Your task to perform on an android device: Search for "acer predator" on amazon.com, select the first entry, and add it to the cart. Image 0: 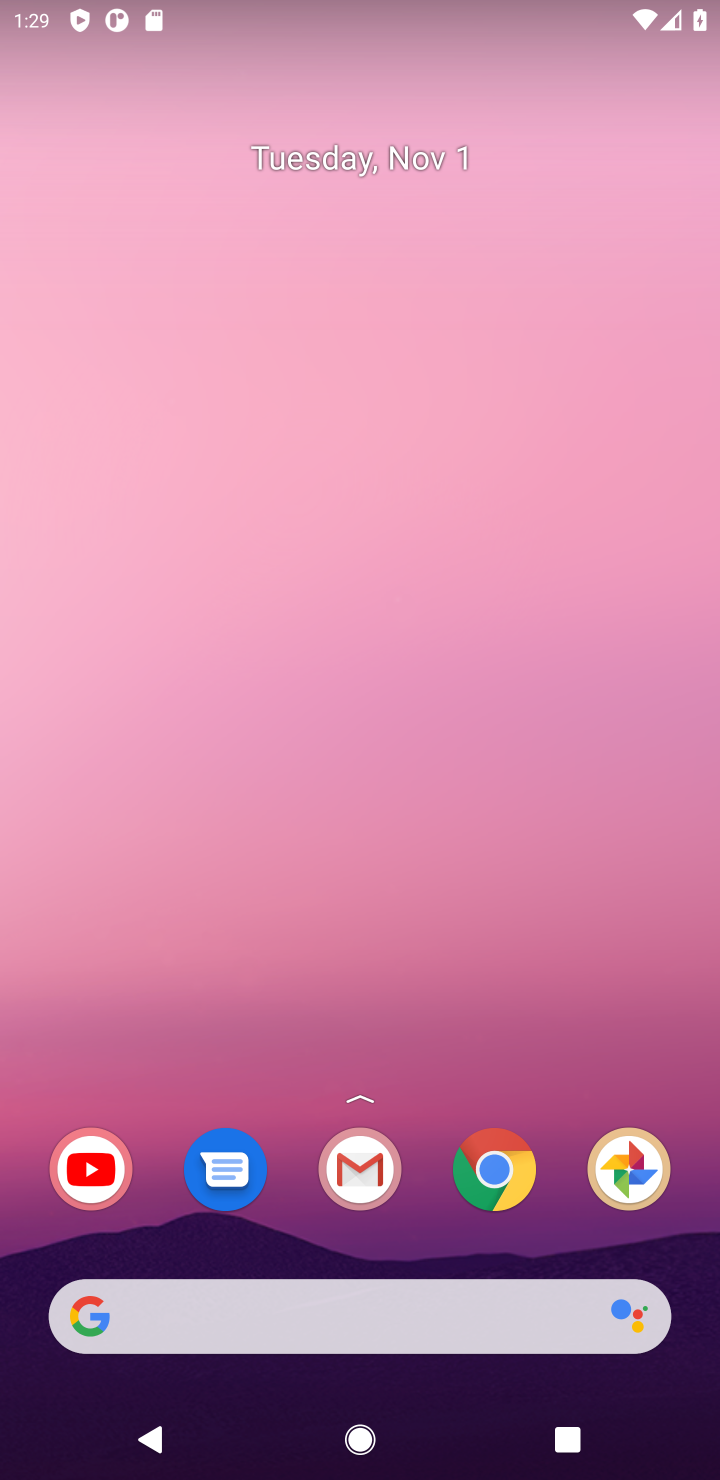
Step 0: click (483, 1184)
Your task to perform on an android device: Search for "acer predator" on amazon.com, select the first entry, and add it to the cart. Image 1: 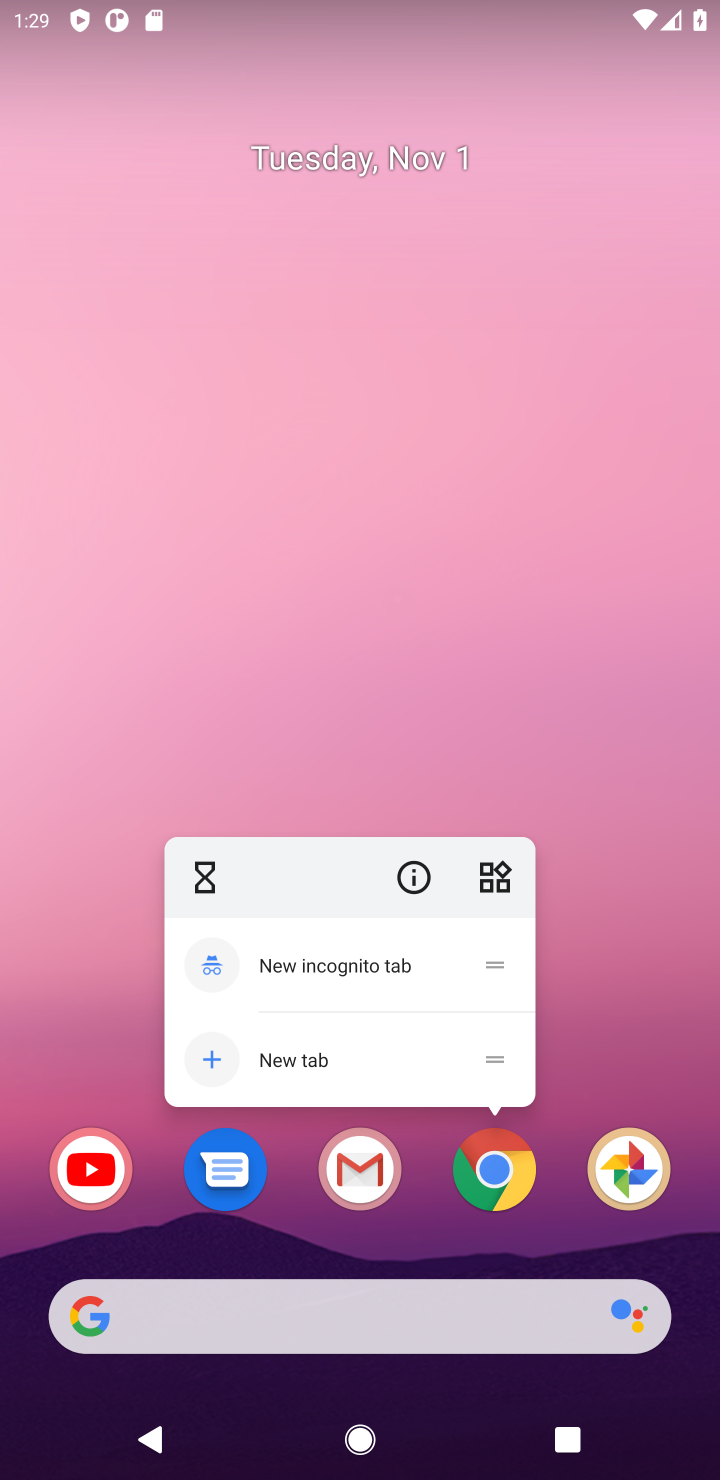
Step 1: click (483, 1184)
Your task to perform on an android device: Search for "acer predator" on amazon.com, select the first entry, and add it to the cart. Image 2: 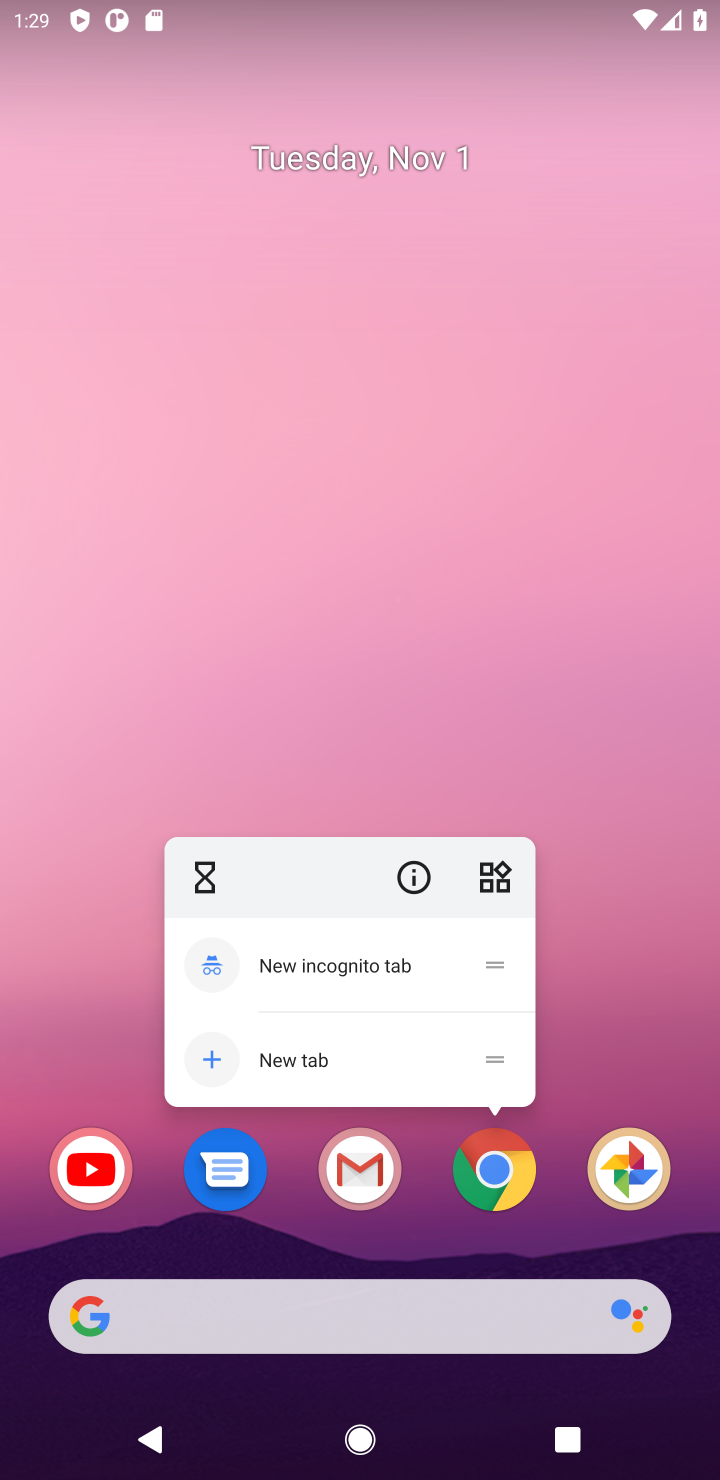
Step 2: click (498, 1163)
Your task to perform on an android device: Search for "acer predator" on amazon.com, select the first entry, and add it to the cart. Image 3: 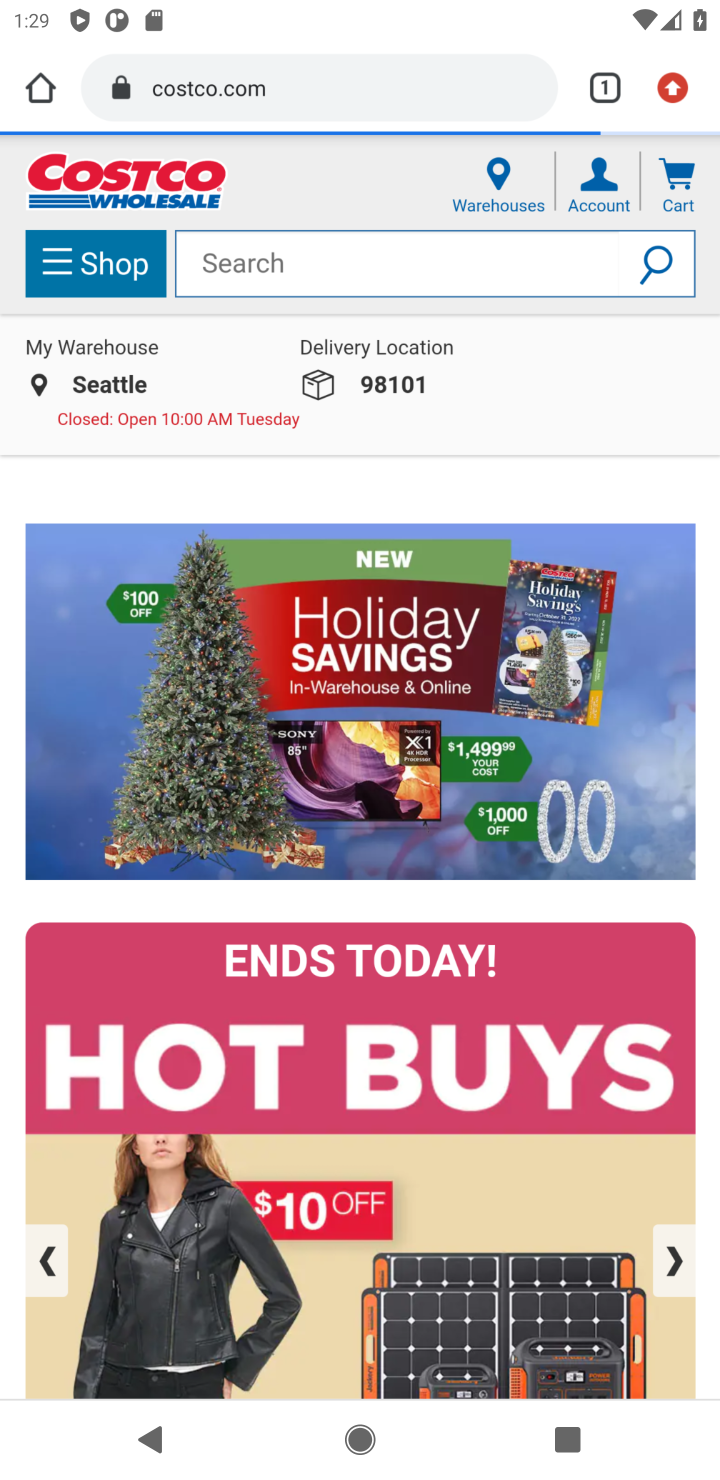
Step 3: click (498, 1163)
Your task to perform on an android device: Search for "acer predator" on amazon.com, select the first entry, and add it to the cart. Image 4: 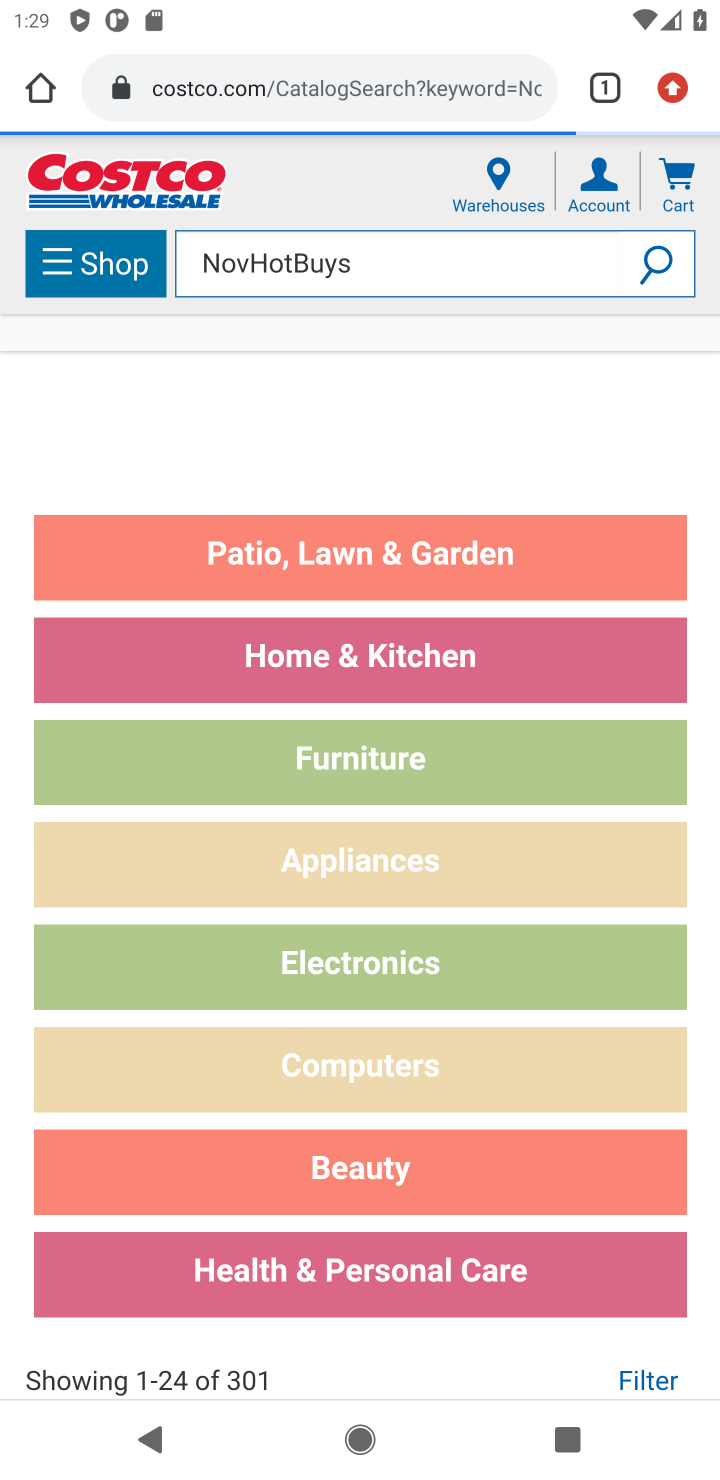
Step 4: click (258, 256)
Your task to perform on an android device: Search for "acer predator" on amazon.com, select the first entry, and add it to the cart. Image 5: 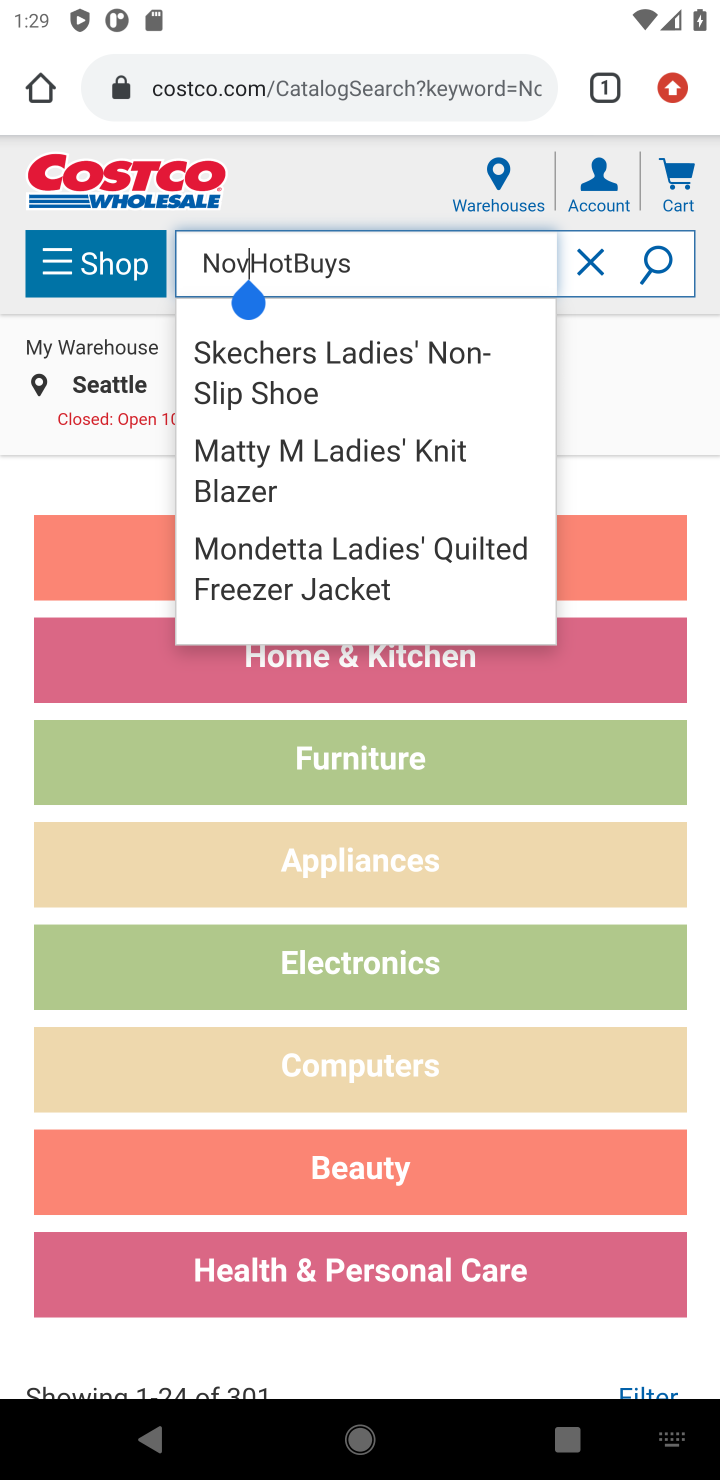
Step 5: click (218, 92)
Your task to perform on an android device: Search for "acer predator" on amazon.com, select the first entry, and add it to the cart. Image 6: 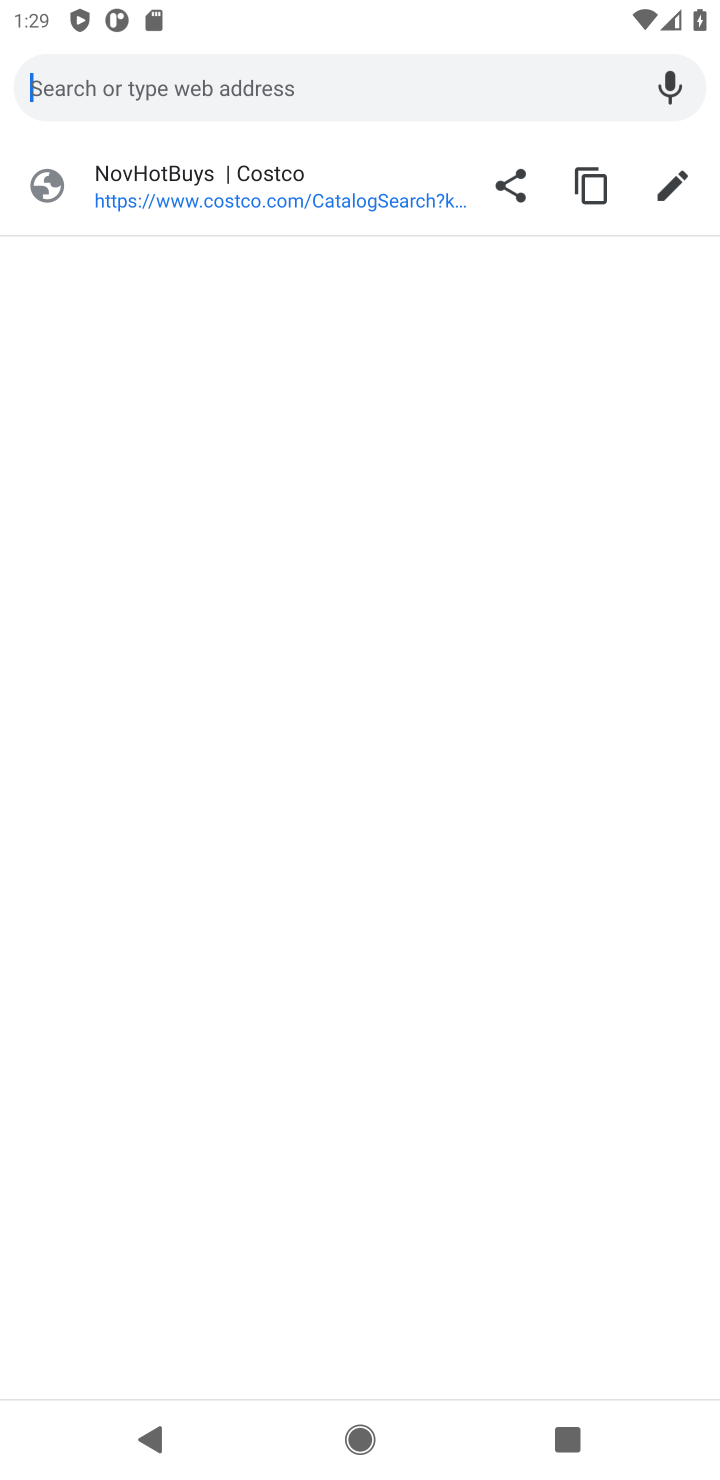
Step 6: type "amazon"
Your task to perform on an android device: Search for "acer predator" on amazon.com, select the first entry, and add it to the cart. Image 7: 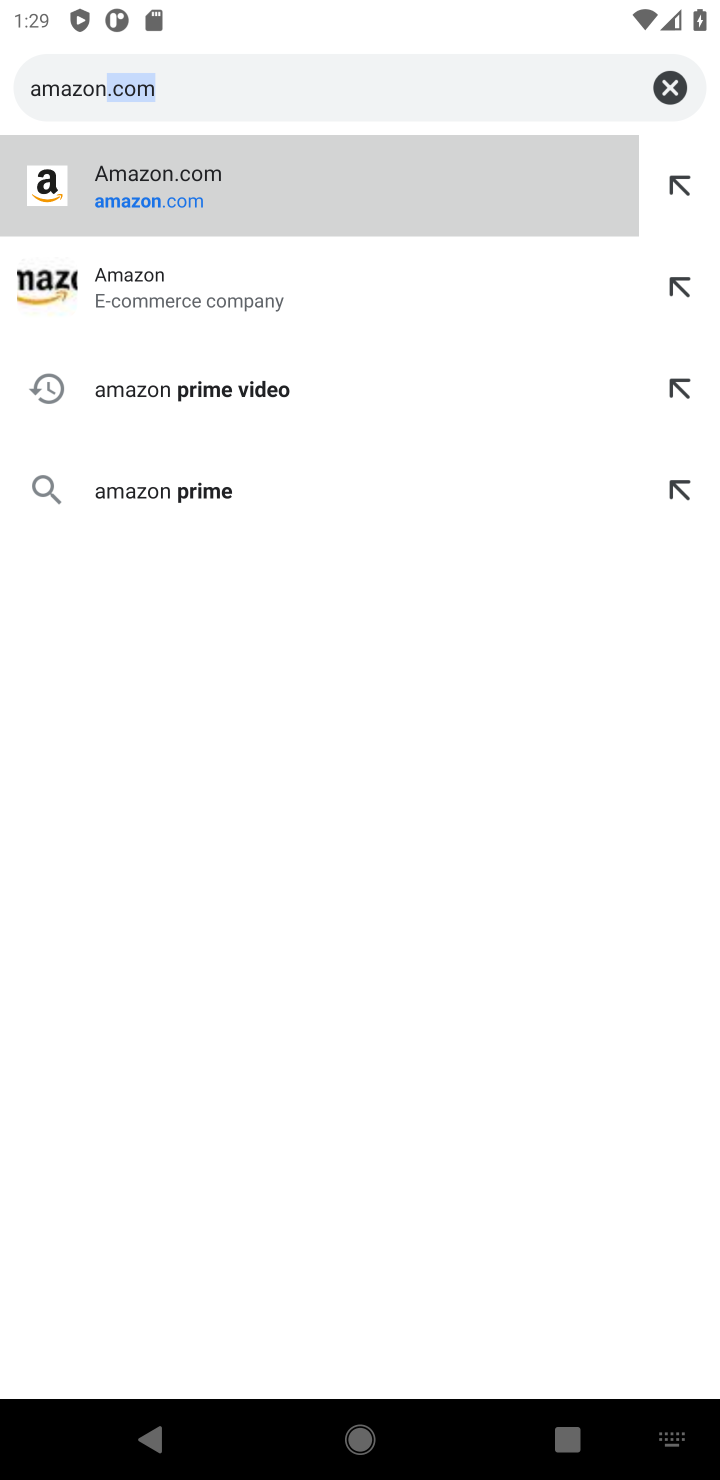
Step 7: click (152, 179)
Your task to perform on an android device: Search for "acer predator" on amazon.com, select the first entry, and add it to the cart. Image 8: 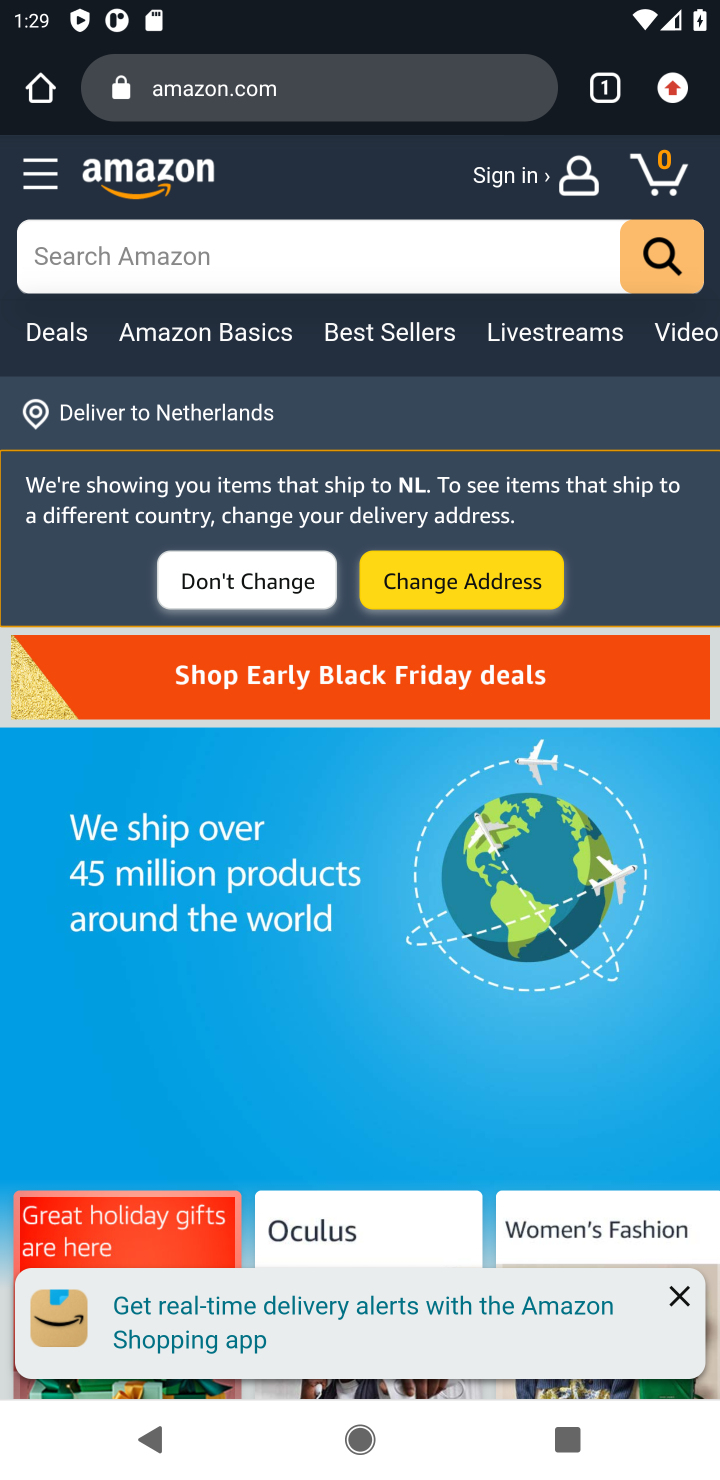
Step 8: click (294, 268)
Your task to perform on an android device: Search for "acer predator" on amazon.com, select the first entry, and add it to the cart. Image 9: 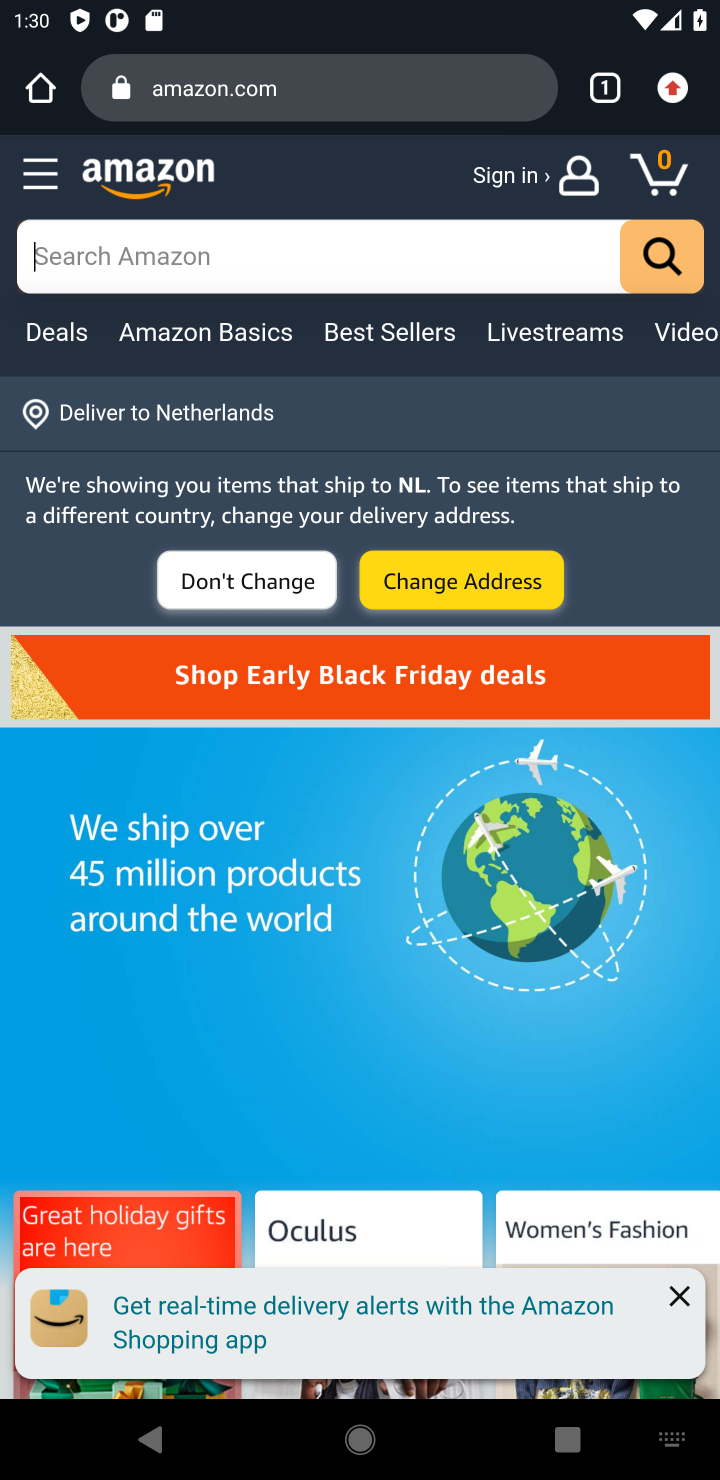
Step 9: type "acer predator"
Your task to perform on an android device: Search for "acer predator" on amazon.com, select the first entry, and add it to the cart. Image 10: 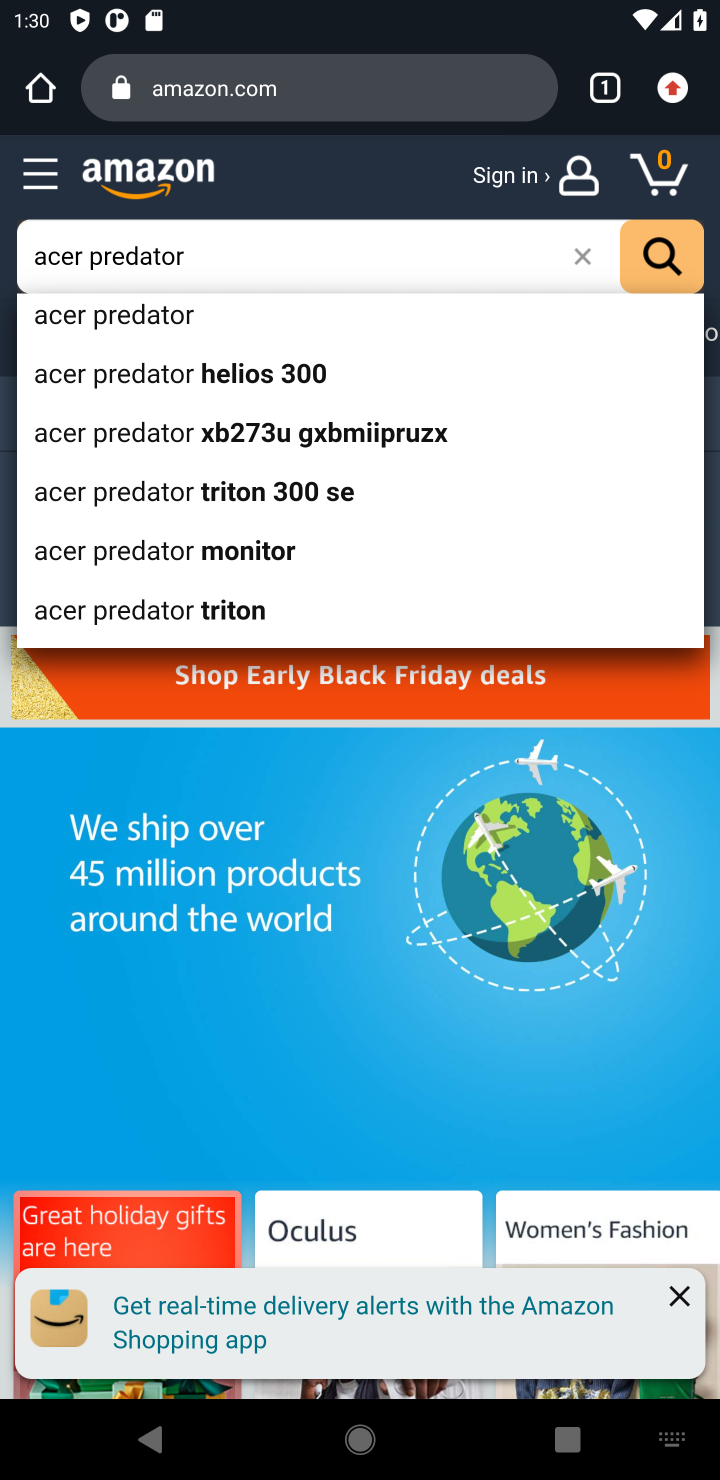
Step 10: click (668, 261)
Your task to perform on an android device: Search for "acer predator" on amazon.com, select the first entry, and add it to the cart. Image 11: 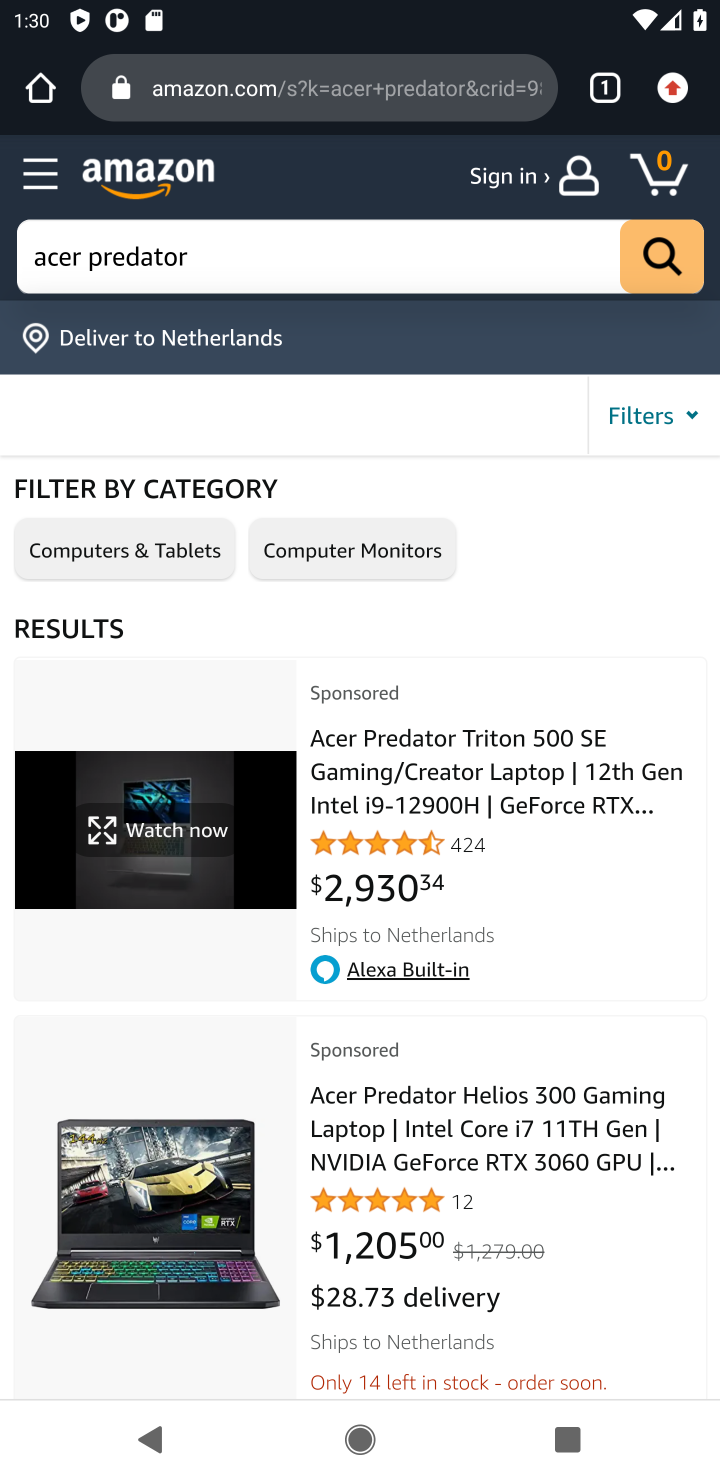
Step 11: click (113, 766)
Your task to perform on an android device: Search for "acer predator" on amazon.com, select the first entry, and add it to the cart. Image 12: 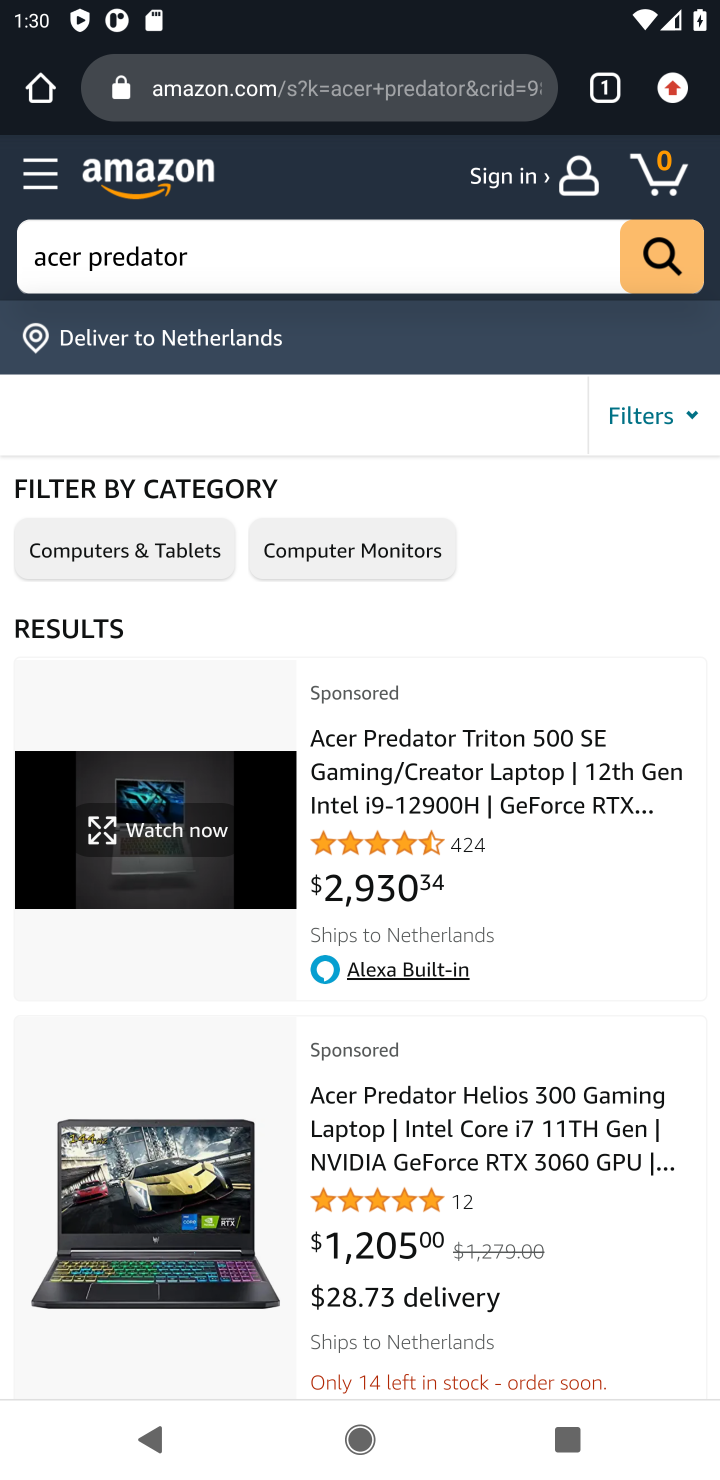
Step 12: click (401, 786)
Your task to perform on an android device: Search for "acer predator" on amazon.com, select the first entry, and add it to the cart. Image 13: 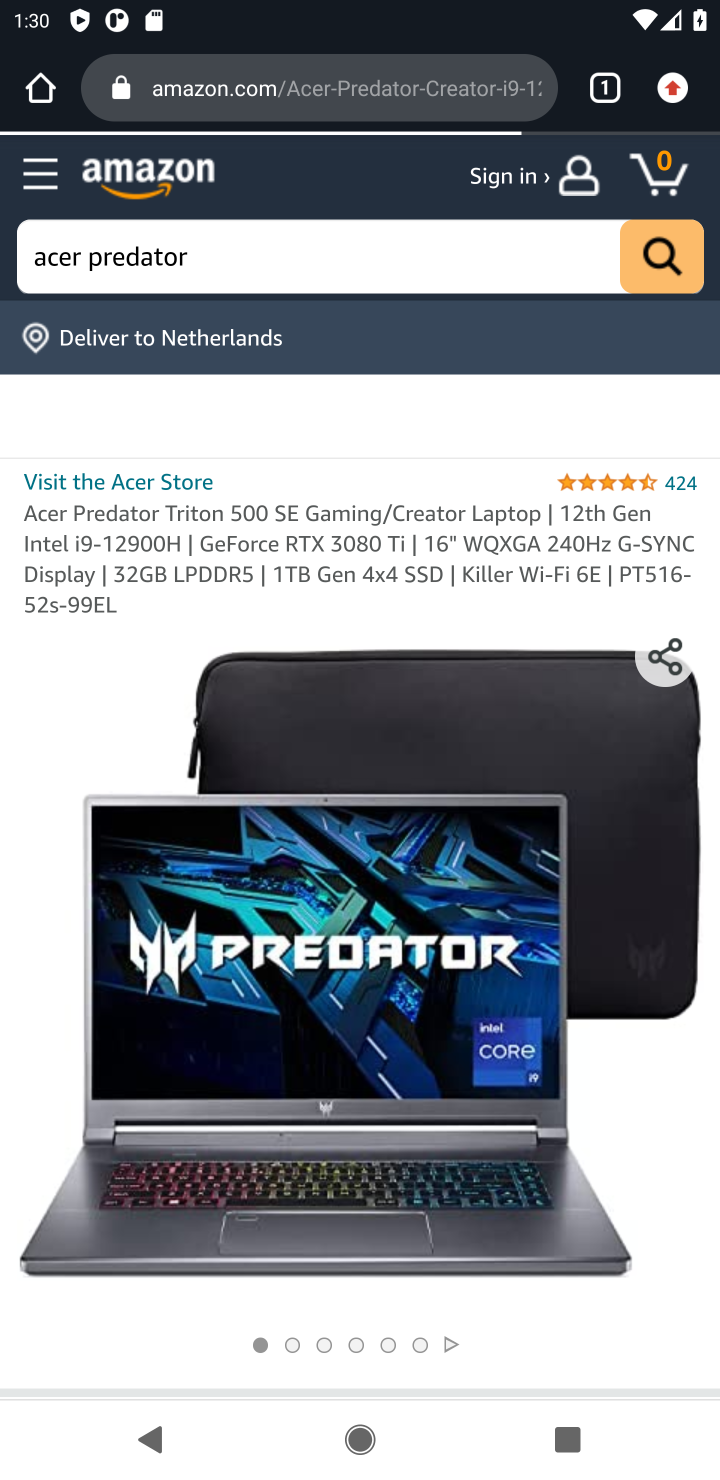
Step 13: drag from (176, 1244) to (285, 534)
Your task to perform on an android device: Search for "acer predator" on amazon.com, select the first entry, and add it to the cart. Image 14: 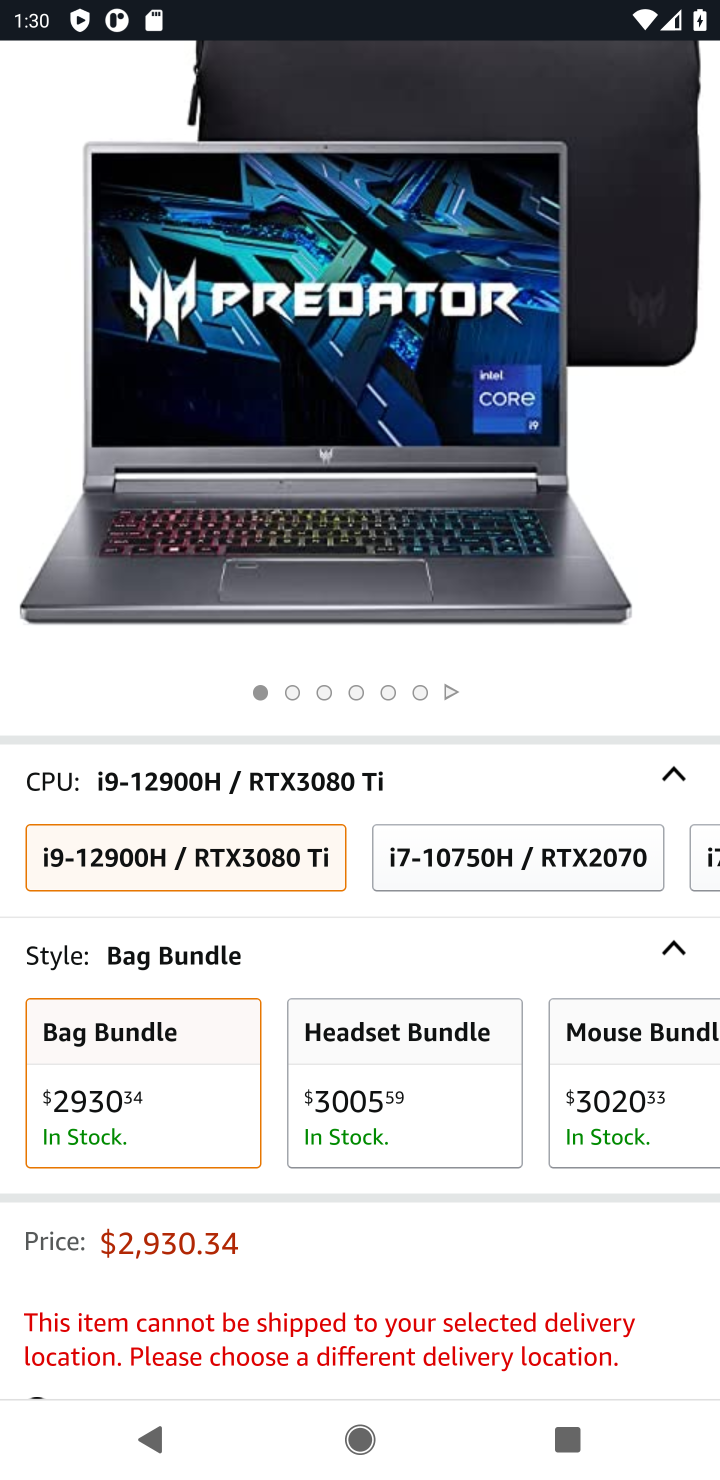
Step 14: drag from (399, 887) to (544, 536)
Your task to perform on an android device: Search for "acer predator" on amazon.com, select the first entry, and add it to the cart. Image 15: 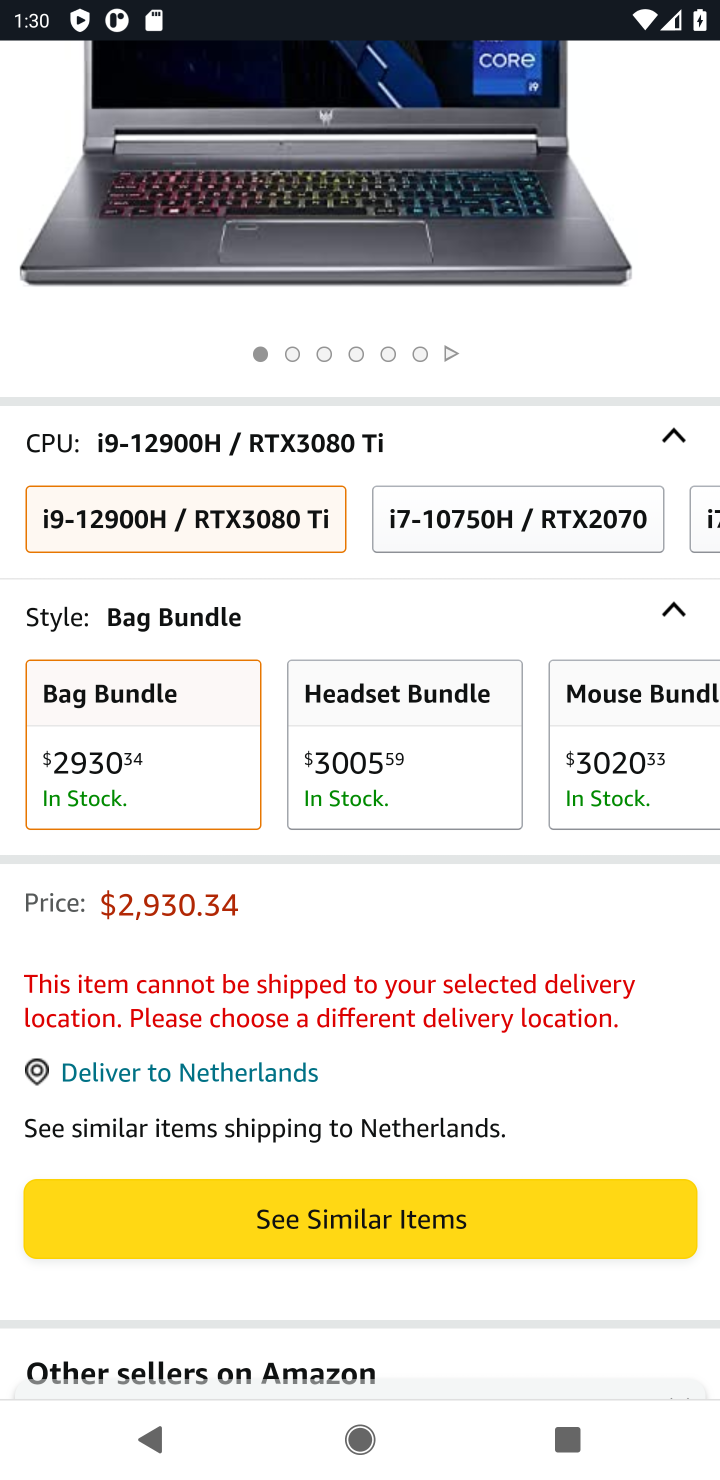
Step 15: click (267, 1214)
Your task to perform on an android device: Search for "acer predator" on amazon.com, select the first entry, and add it to the cart. Image 16: 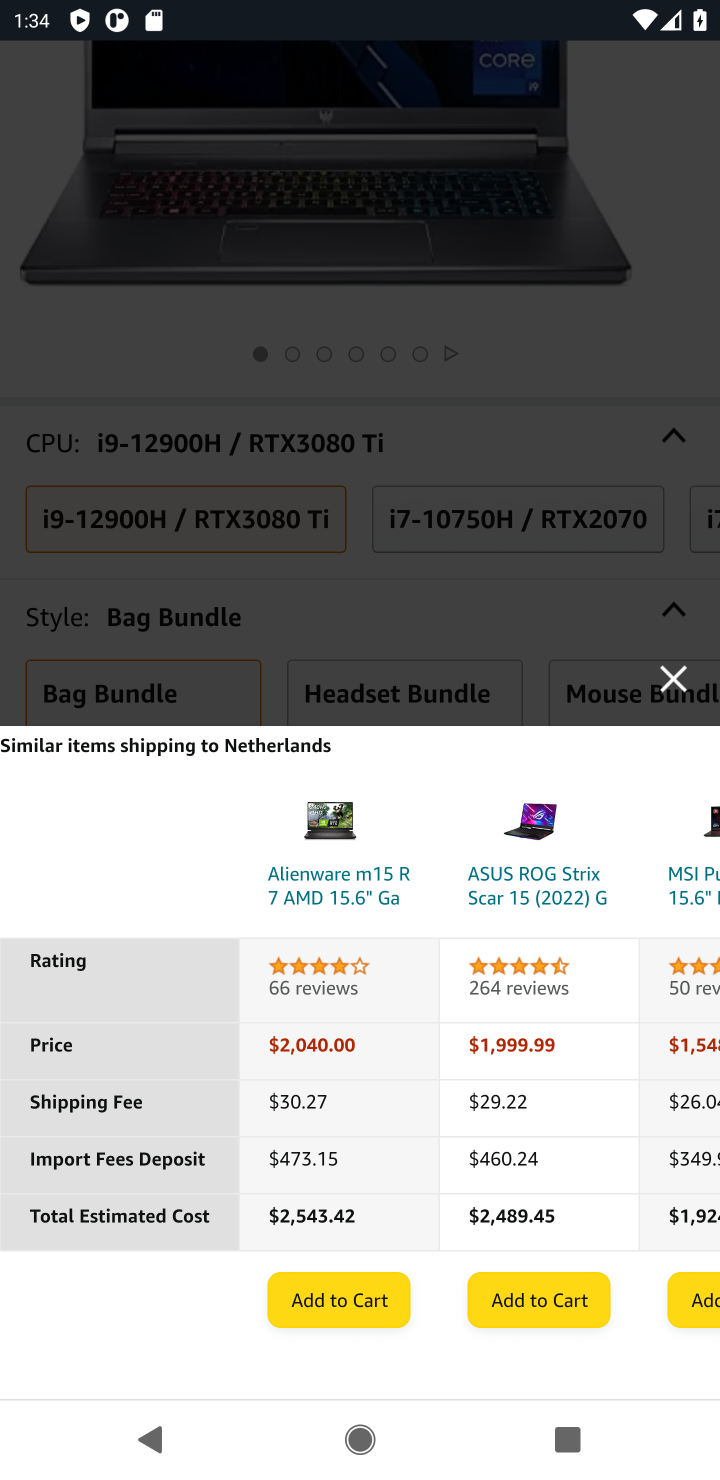
Step 16: task complete